Your task to perform on an android device: Open Google Chrome and click the shortcut for Amazon.com Image 0: 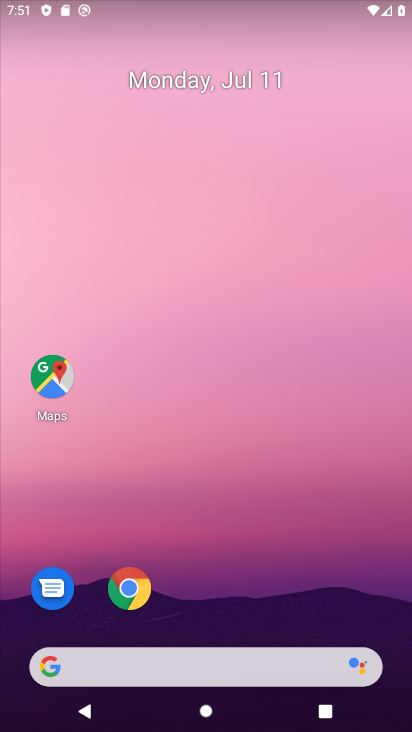
Step 0: click (129, 605)
Your task to perform on an android device: Open Google Chrome and click the shortcut for Amazon.com Image 1: 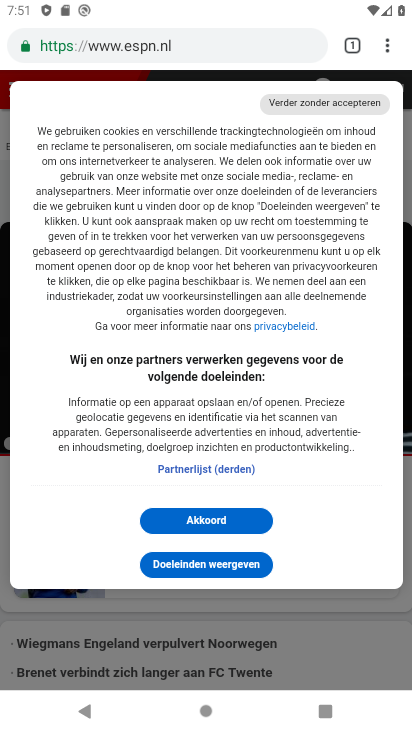
Step 1: click (385, 43)
Your task to perform on an android device: Open Google Chrome and click the shortcut for Amazon.com Image 2: 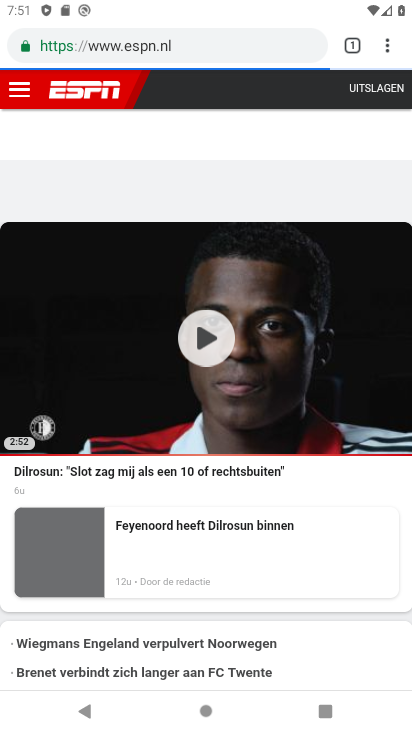
Step 2: click (381, 46)
Your task to perform on an android device: Open Google Chrome and click the shortcut for Amazon.com Image 3: 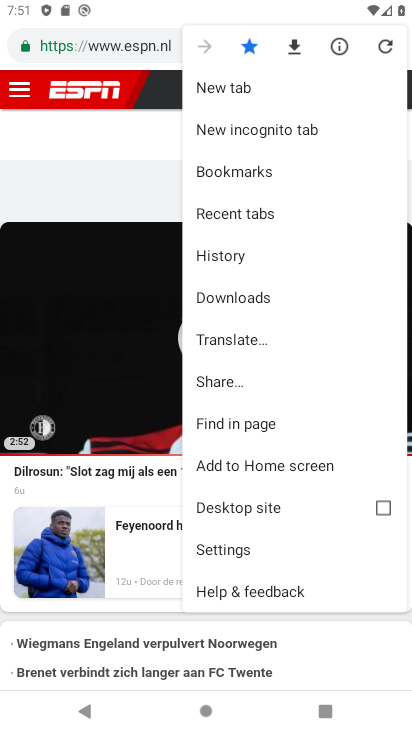
Step 3: click (221, 85)
Your task to perform on an android device: Open Google Chrome and click the shortcut for Amazon.com Image 4: 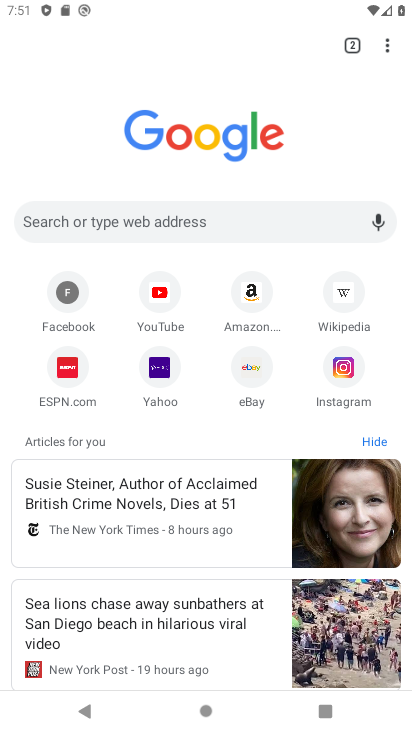
Step 4: click (251, 293)
Your task to perform on an android device: Open Google Chrome and click the shortcut for Amazon.com Image 5: 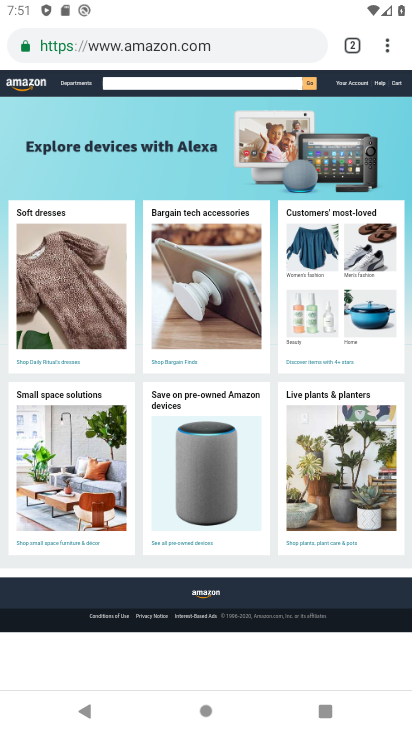
Step 5: task complete